Your task to perform on an android device: Go to Google Image 0: 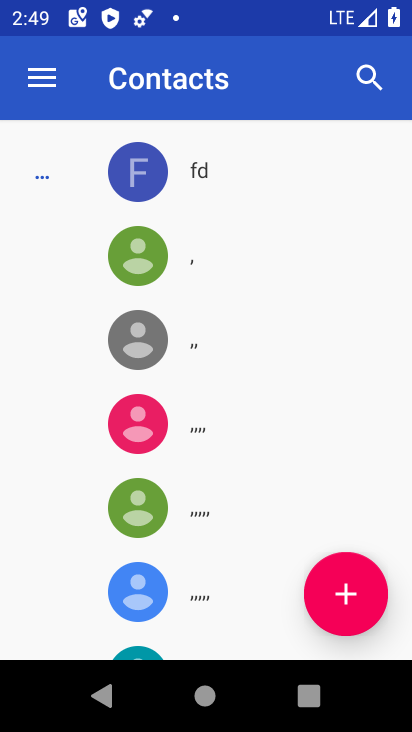
Step 0: press home button
Your task to perform on an android device: Go to Google Image 1: 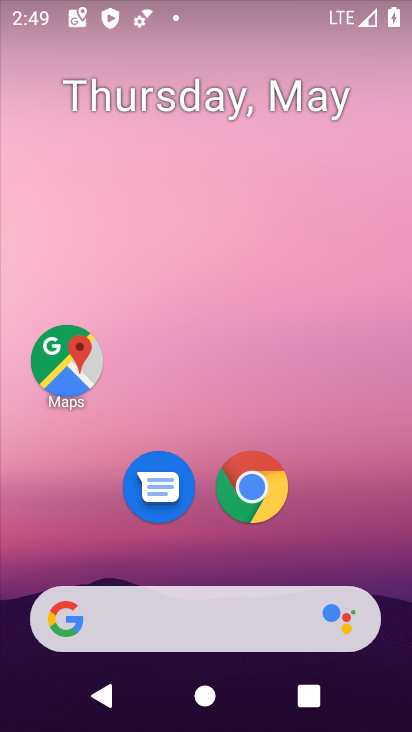
Step 1: drag from (215, 651) to (251, 195)
Your task to perform on an android device: Go to Google Image 2: 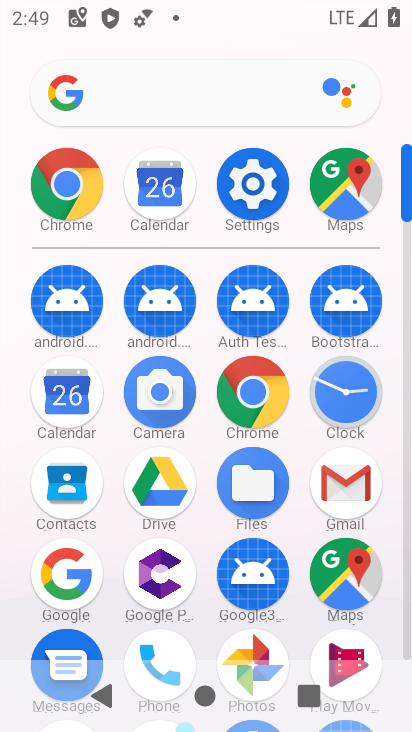
Step 2: drag from (253, 476) to (260, 154)
Your task to perform on an android device: Go to Google Image 3: 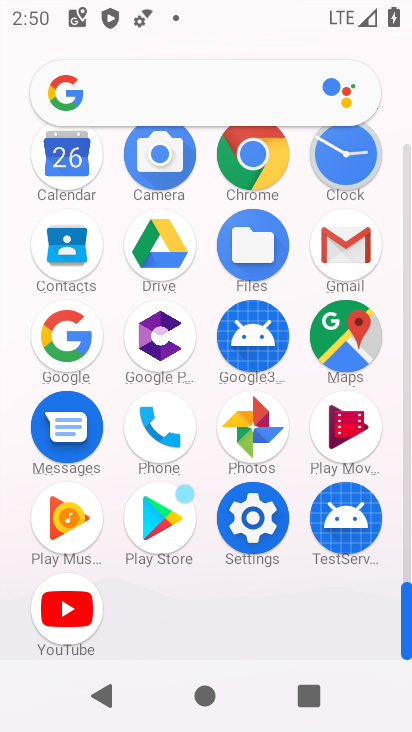
Step 3: click (75, 356)
Your task to perform on an android device: Go to Google Image 4: 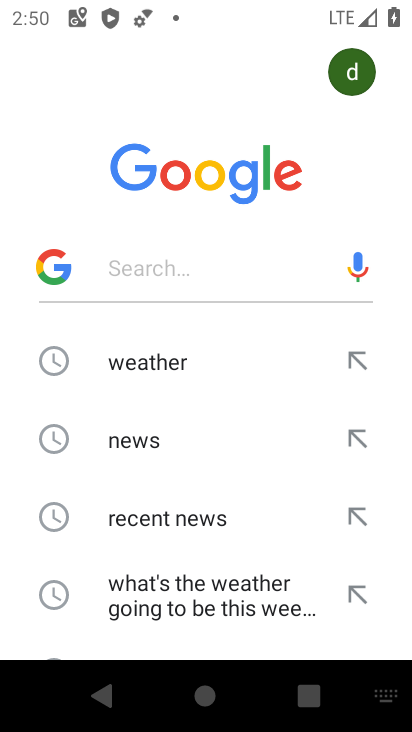
Step 4: task complete